Your task to perform on an android device: change text size in settings app Image 0: 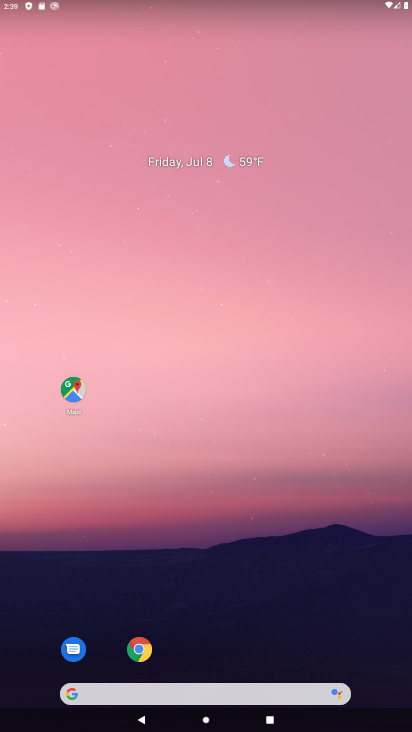
Step 0: drag from (389, 631) to (212, 257)
Your task to perform on an android device: change text size in settings app Image 1: 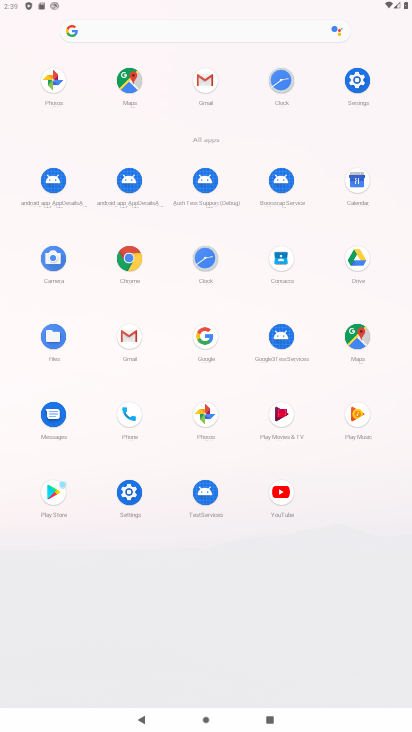
Step 1: click (361, 74)
Your task to perform on an android device: change text size in settings app Image 2: 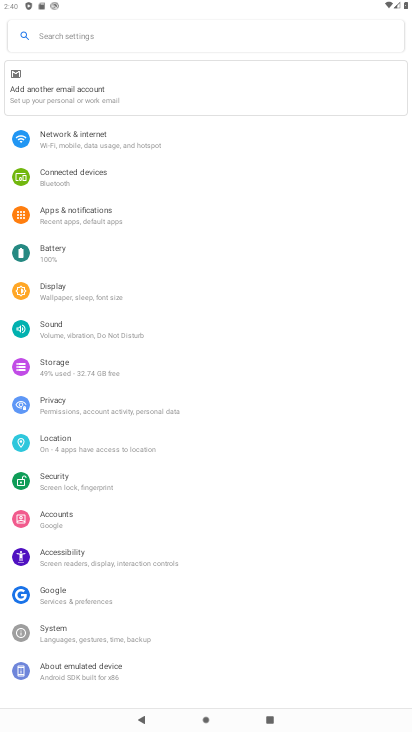
Step 2: click (86, 299)
Your task to perform on an android device: change text size in settings app Image 3: 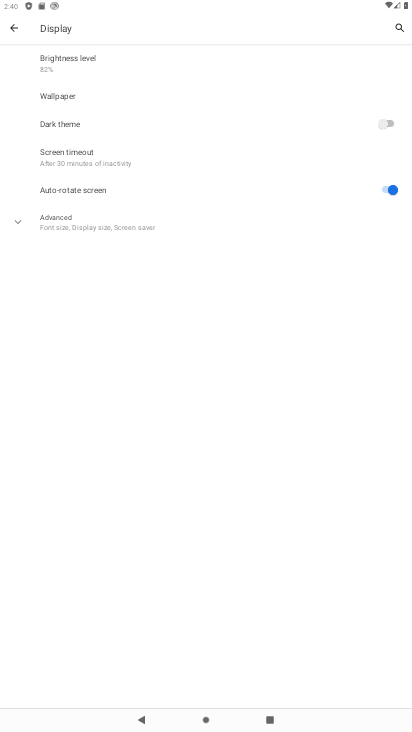
Step 3: click (71, 228)
Your task to perform on an android device: change text size in settings app Image 4: 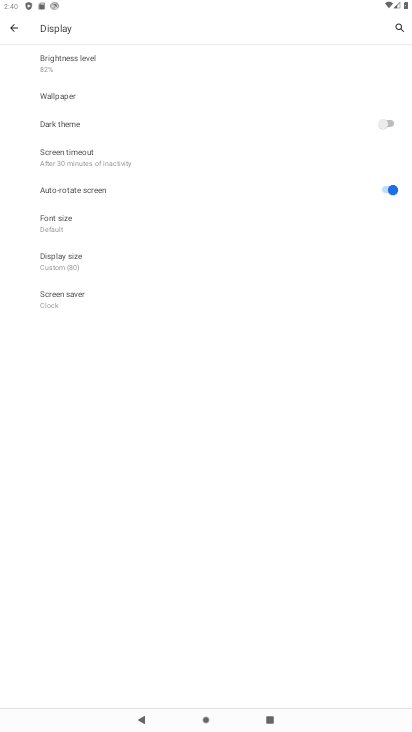
Step 4: click (48, 219)
Your task to perform on an android device: change text size in settings app Image 5: 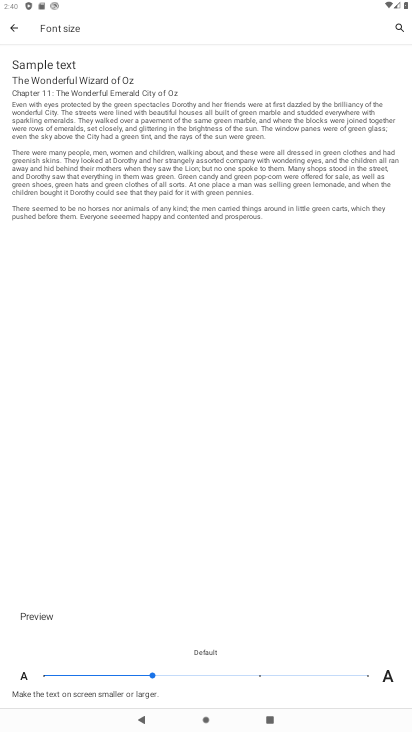
Step 5: click (123, 671)
Your task to perform on an android device: change text size in settings app Image 6: 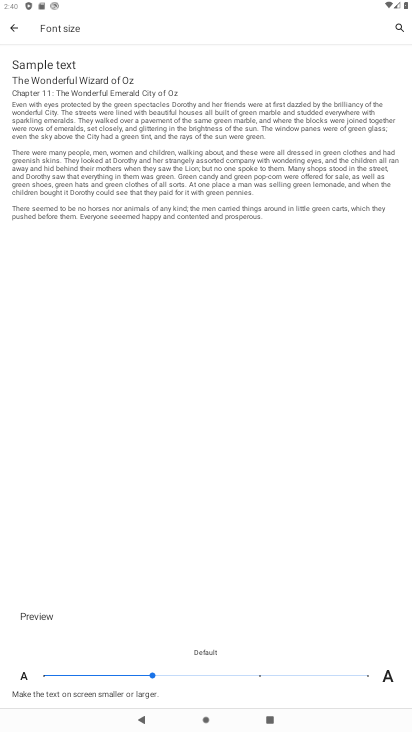
Step 6: click (92, 673)
Your task to perform on an android device: change text size in settings app Image 7: 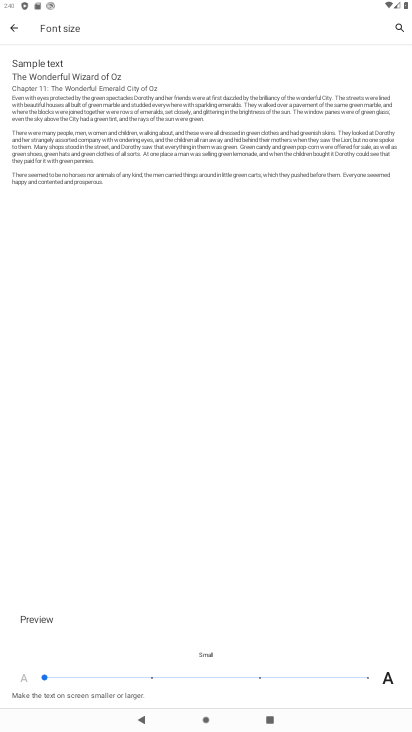
Step 7: task complete